Your task to perform on an android device: Go to Google Image 0: 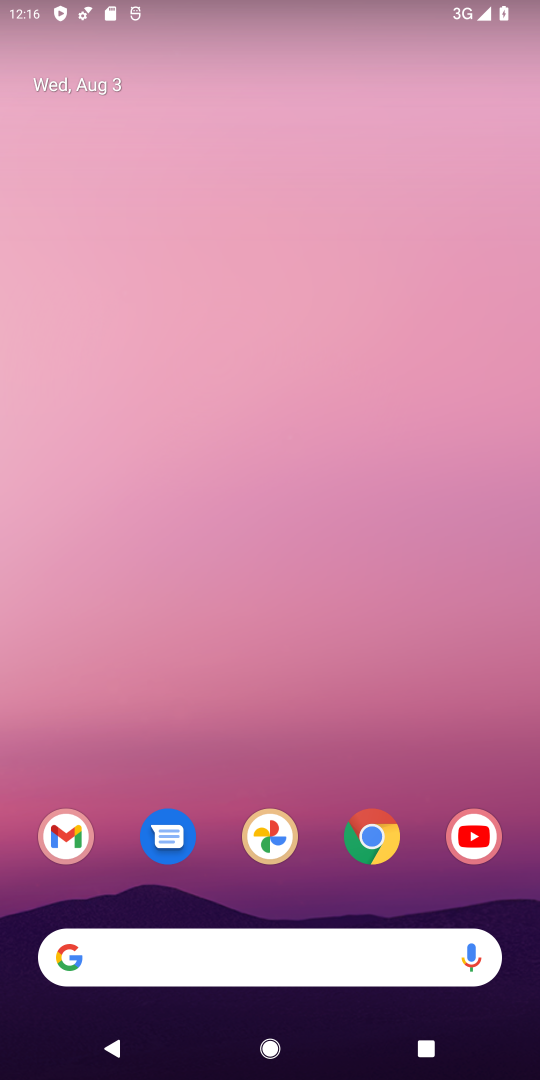
Step 0: drag from (204, 877) to (373, 24)
Your task to perform on an android device: Go to Google Image 1: 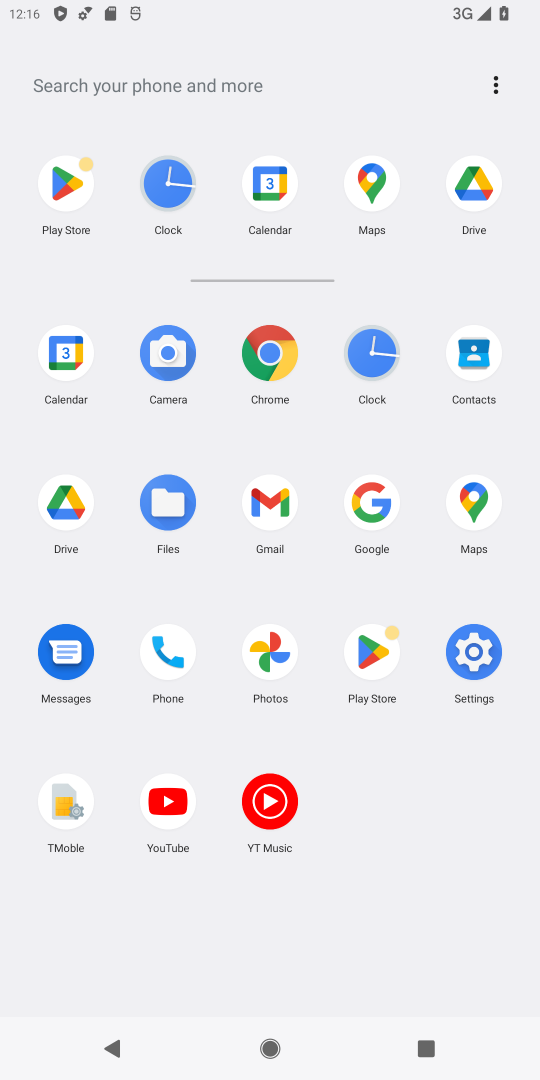
Step 1: click (361, 503)
Your task to perform on an android device: Go to Google Image 2: 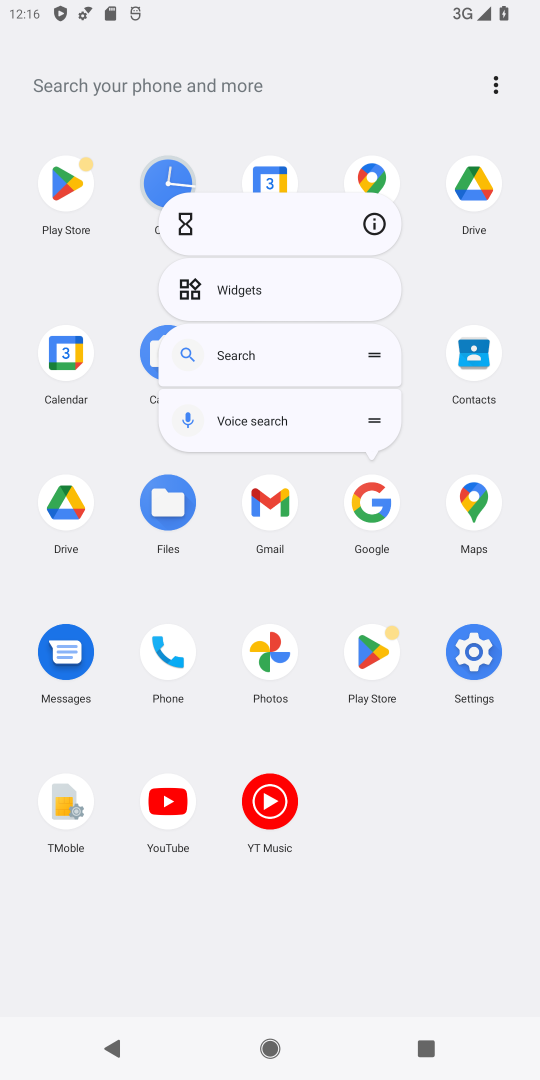
Step 2: click (380, 222)
Your task to perform on an android device: Go to Google Image 3: 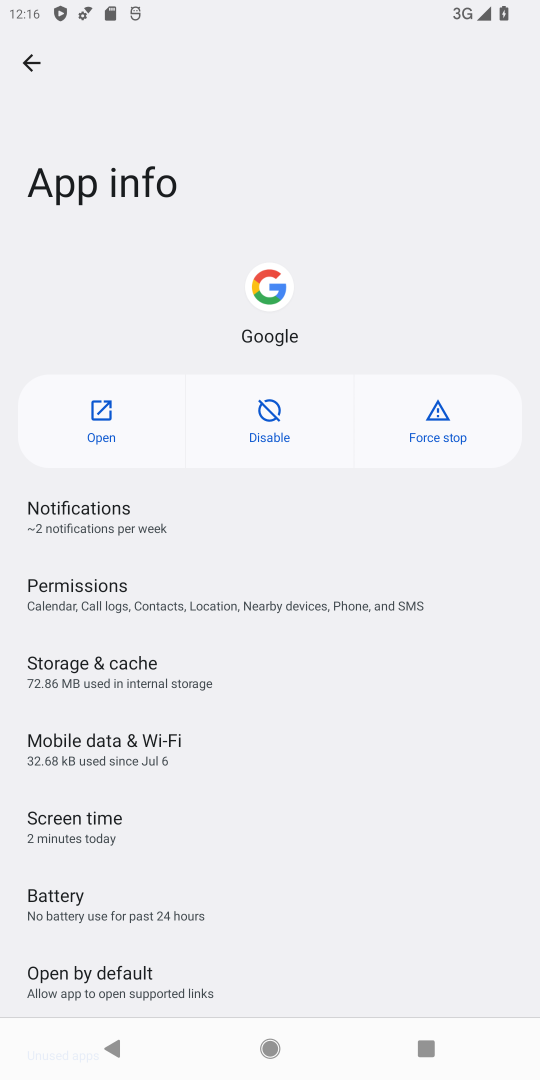
Step 3: click (98, 402)
Your task to perform on an android device: Go to Google Image 4: 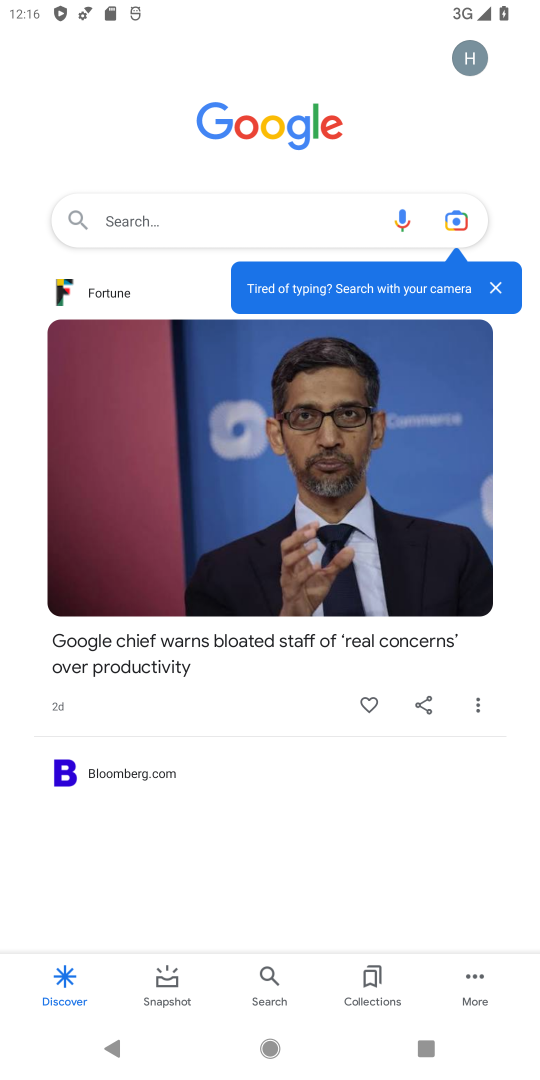
Step 4: task complete